Your task to perform on an android device: Turn off the flashlight Image 0: 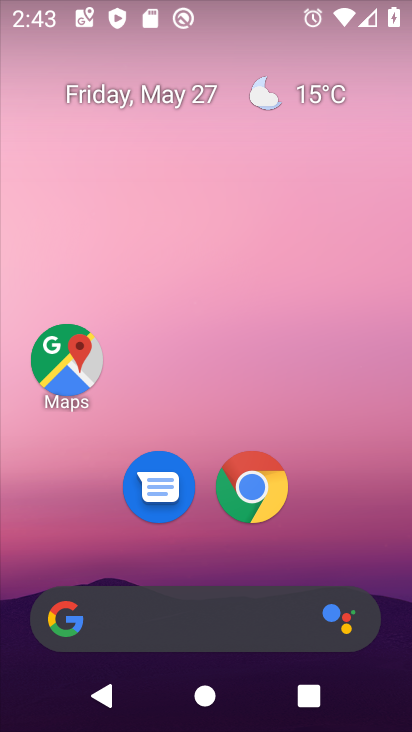
Step 0: task impossible